Your task to perform on an android device: move a message to another label in the gmail app Image 0: 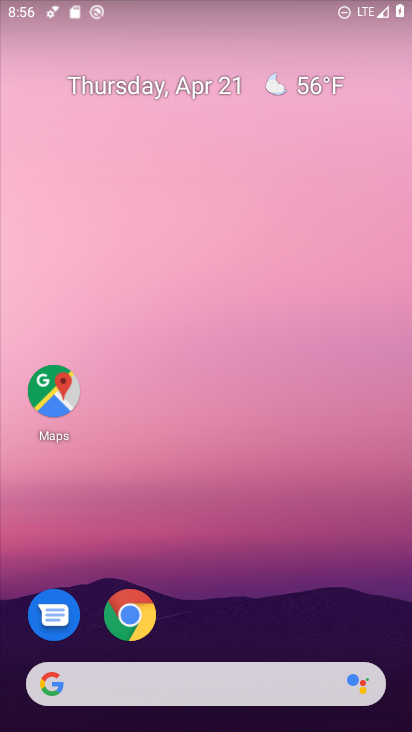
Step 0: drag from (280, 408) to (274, 28)
Your task to perform on an android device: move a message to another label in the gmail app Image 1: 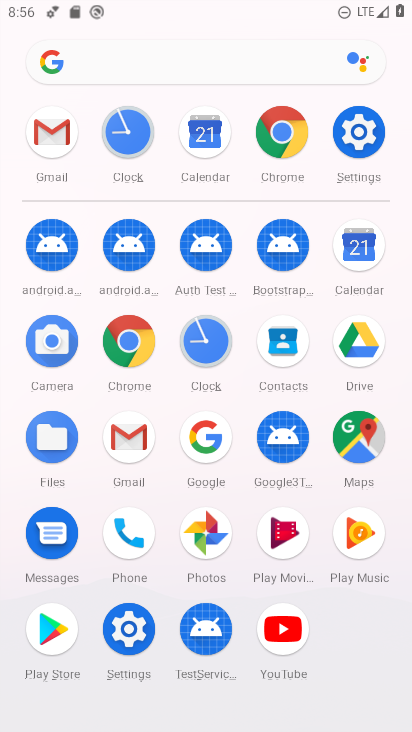
Step 1: click (50, 156)
Your task to perform on an android device: move a message to another label in the gmail app Image 2: 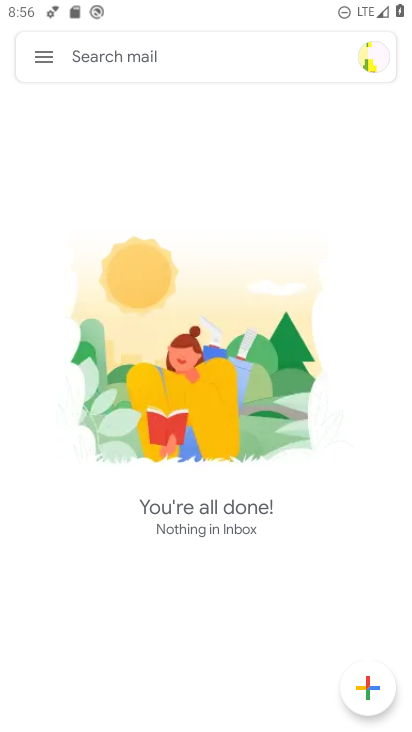
Step 2: click (38, 49)
Your task to perform on an android device: move a message to another label in the gmail app Image 3: 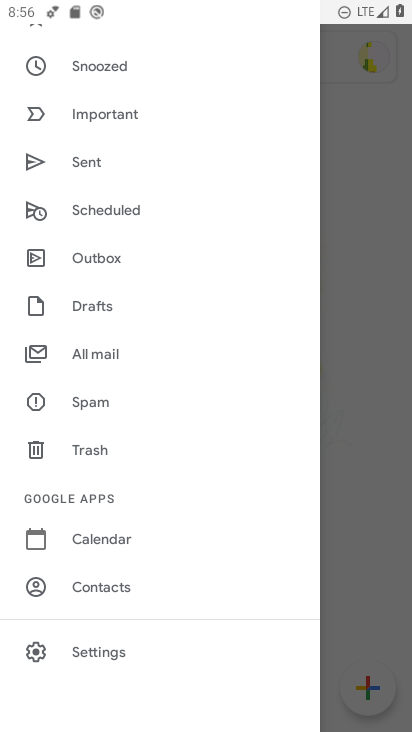
Step 3: click (375, 304)
Your task to perform on an android device: move a message to another label in the gmail app Image 4: 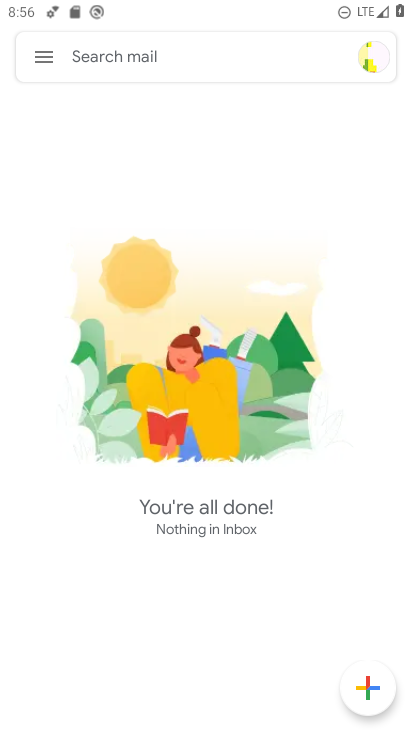
Step 4: task complete